Your task to perform on an android device: move a message to another label in the gmail app Image 0: 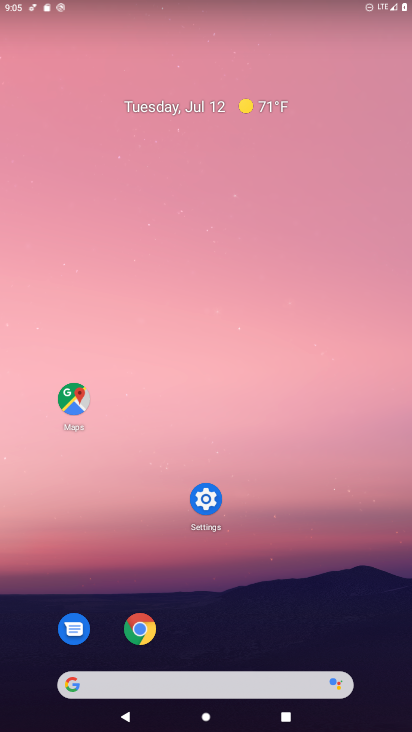
Step 0: drag from (382, 694) to (348, 8)
Your task to perform on an android device: move a message to another label in the gmail app Image 1: 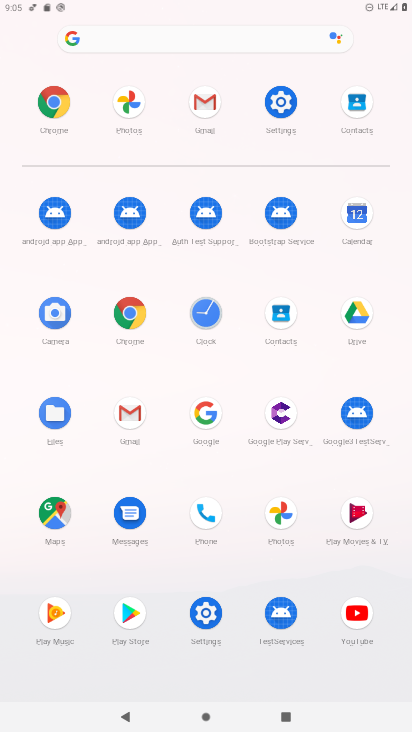
Step 1: click (130, 414)
Your task to perform on an android device: move a message to another label in the gmail app Image 2: 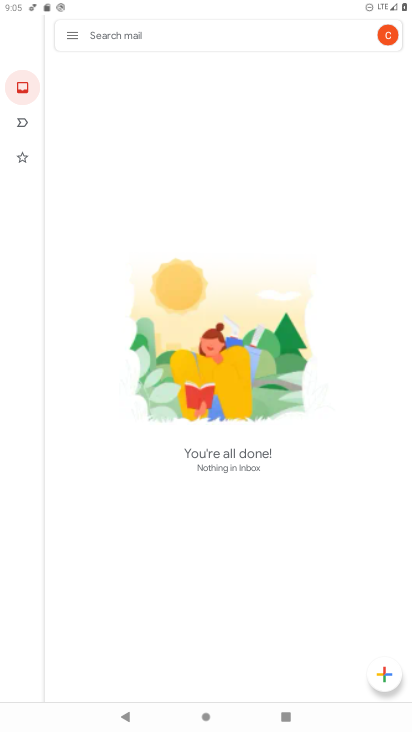
Step 2: task complete